Your task to perform on an android device: turn on wifi Image 0: 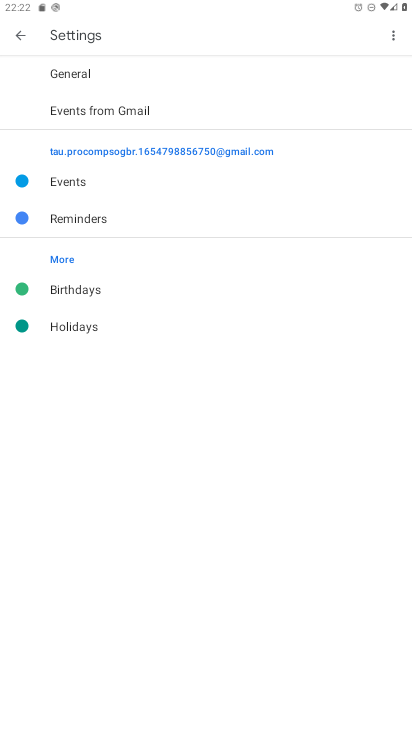
Step 0: press home button
Your task to perform on an android device: turn on wifi Image 1: 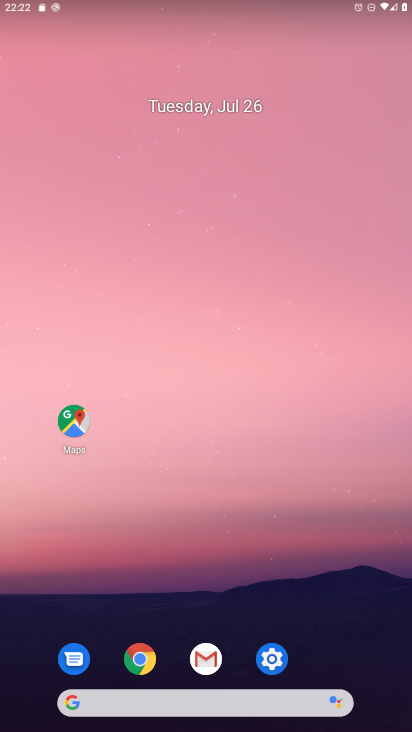
Step 1: click (271, 657)
Your task to perform on an android device: turn on wifi Image 2: 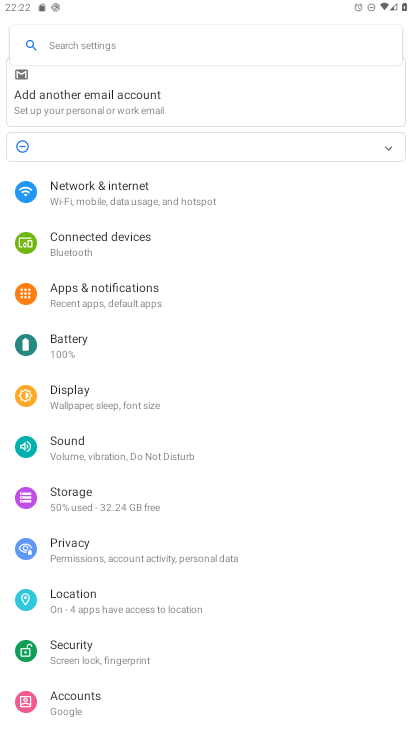
Step 2: click (139, 202)
Your task to perform on an android device: turn on wifi Image 3: 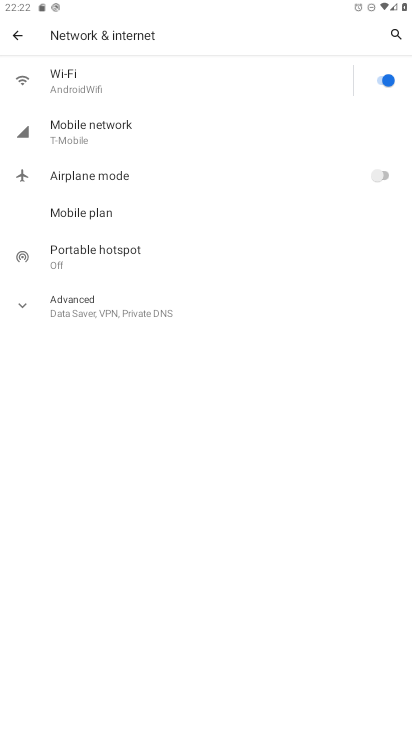
Step 3: click (86, 72)
Your task to perform on an android device: turn on wifi Image 4: 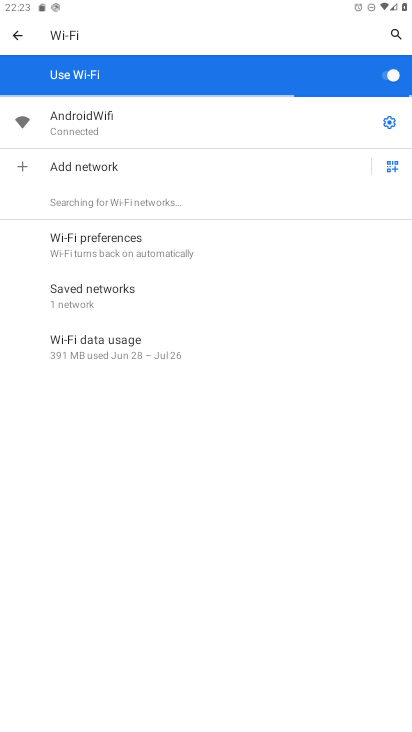
Step 4: task complete